Your task to perform on an android device: open app "Google Translate" Image 0: 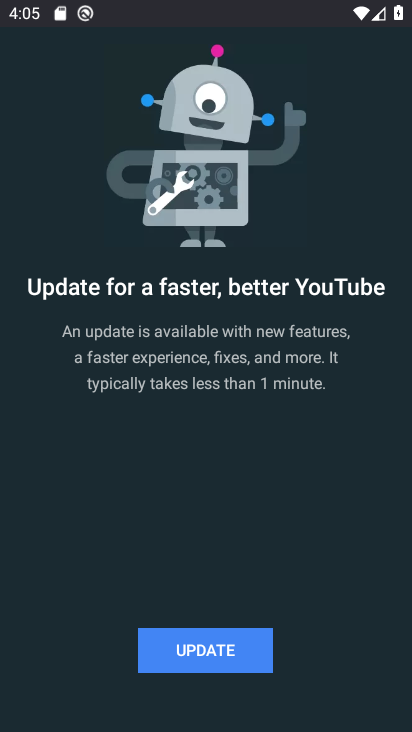
Step 0: press home button
Your task to perform on an android device: open app "Google Translate" Image 1: 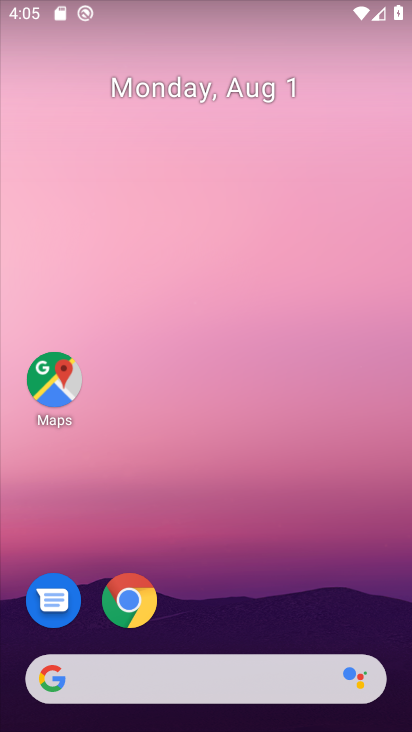
Step 1: drag from (265, 563) to (218, 47)
Your task to perform on an android device: open app "Google Translate" Image 2: 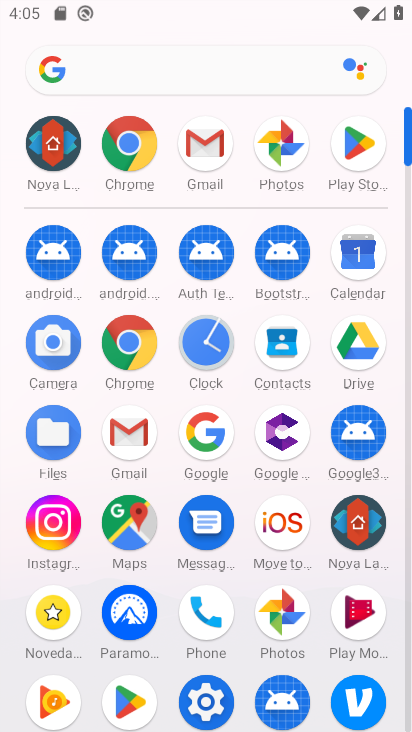
Step 2: click (365, 147)
Your task to perform on an android device: open app "Google Translate" Image 3: 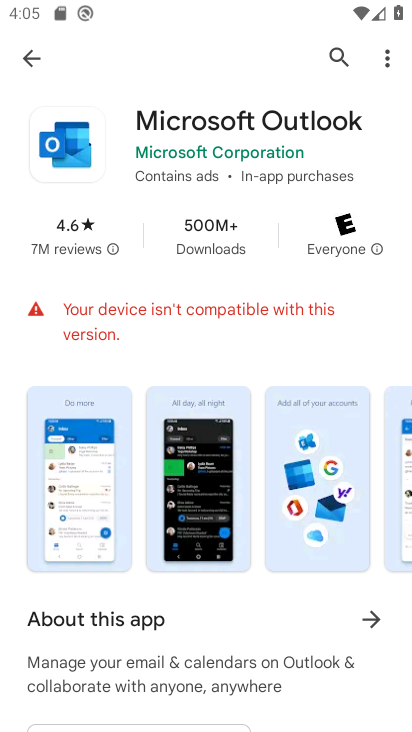
Step 3: click (325, 56)
Your task to perform on an android device: open app "Google Translate" Image 4: 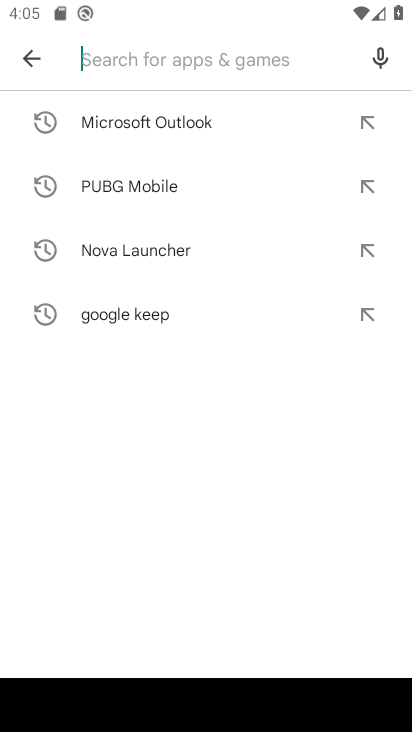
Step 4: type "Google Translate"
Your task to perform on an android device: open app "Google Translate" Image 5: 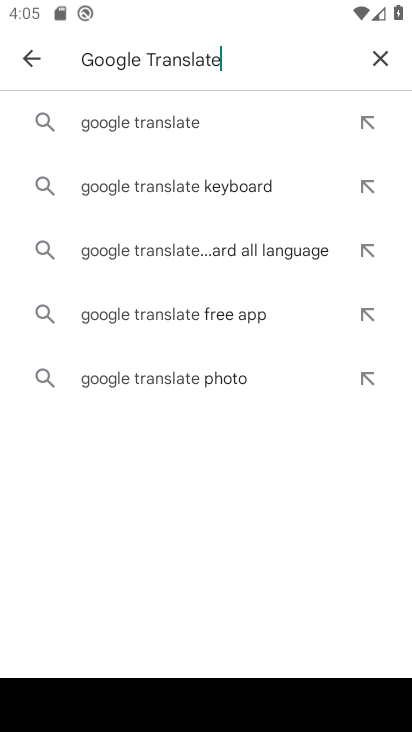
Step 5: press enter
Your task to perform on an android device: open app "Google Translate" Image 6: 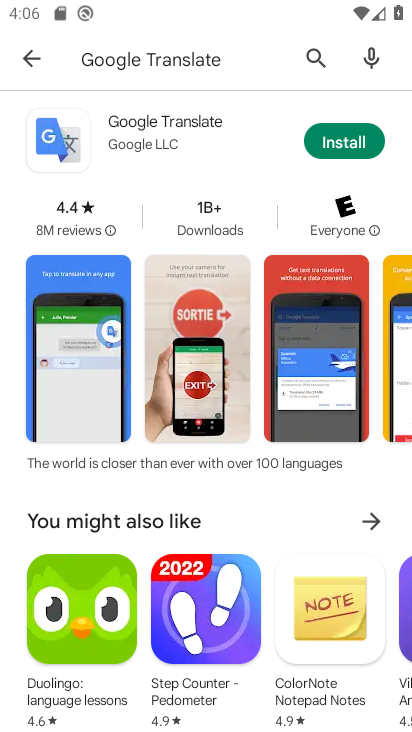
Step 6: click (218, 127)
Your task to perform on an android device: open app "Google Translate" Image 7: 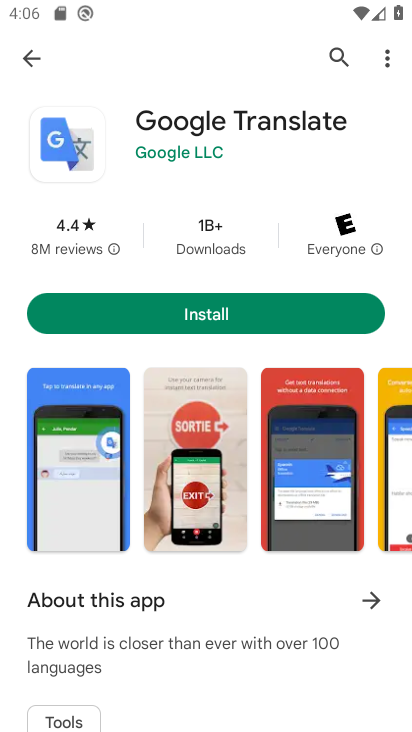
Step 7: task complete